Your task to perform on an android device: Open calendar and show me the fourth week of next month Image 0: 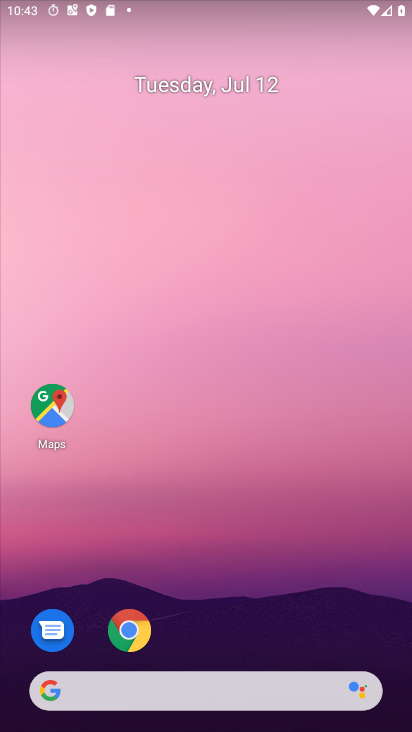
Step 0: drag from (216, 623) to (206, 110)
Your task to perform on an android device: Open calendar and show me the fourth week of next month Image 1: 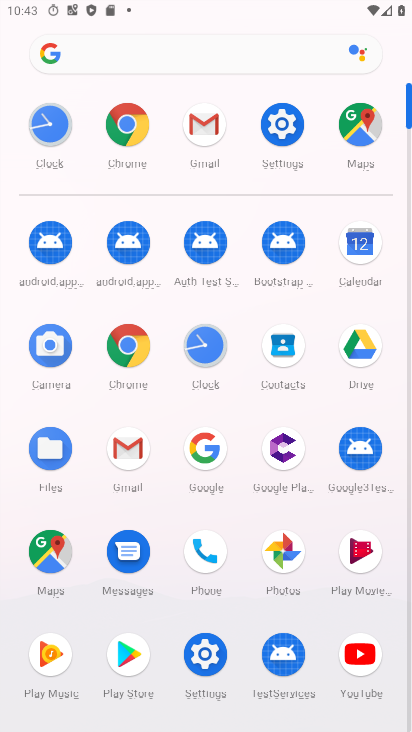
Step 1: click (359, 245)
Your task to perform on an android device: Open calendar and show me the fourth week of next month Image 2: 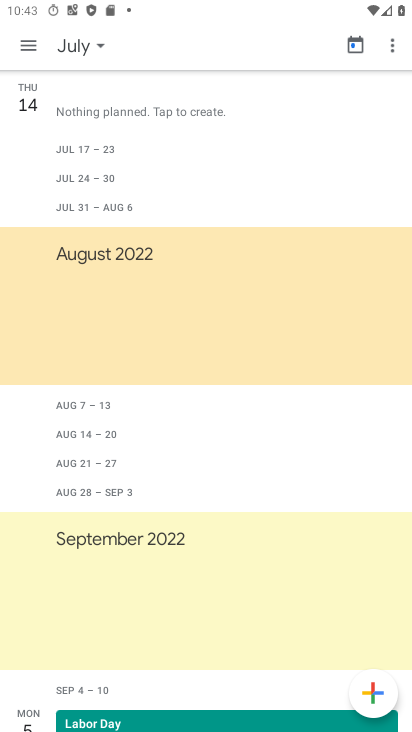
Step 2: click (92, 44)
Your task to perform on an android device: Open calendar and show me the fourth week of next month Image 3: 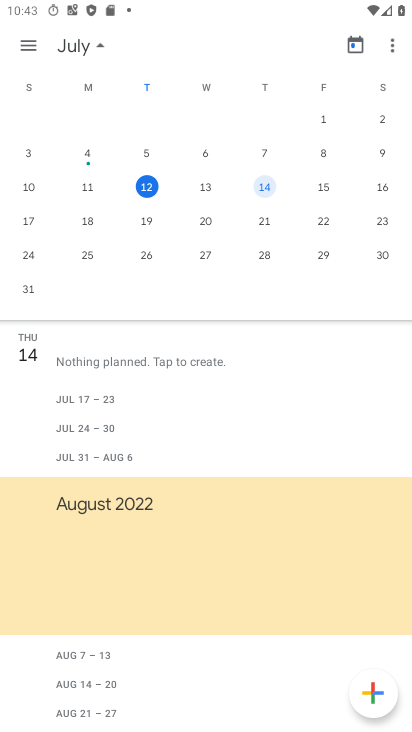
Step 3: drag from (391, 290) to (13, 269)
Your task to perform on an android device: Open calendar and show me the fourth week of next month Image 4: 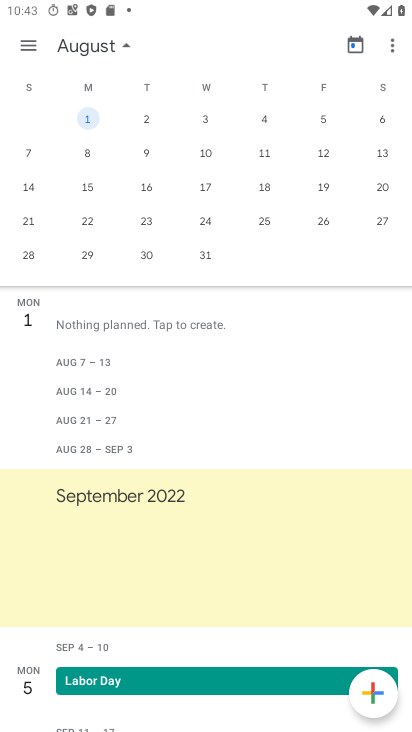
Step 4: click (150, 212)
Your task to perform on an android device: Open calendar and show me the fourth week of next month Image 5: 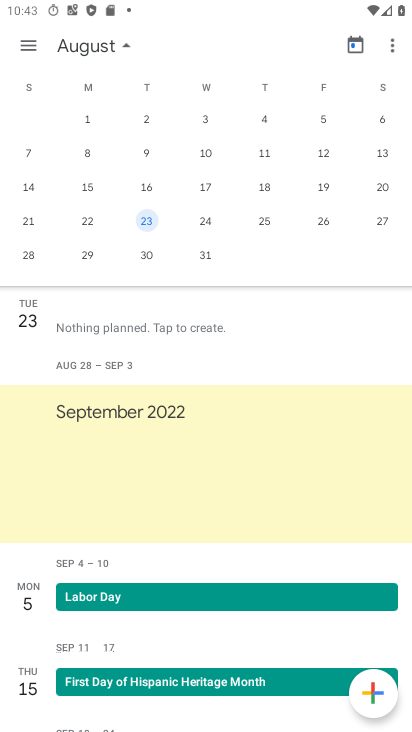
Step 5: task complete